Your task to perform on an android device: change text size in settings app Image 0: 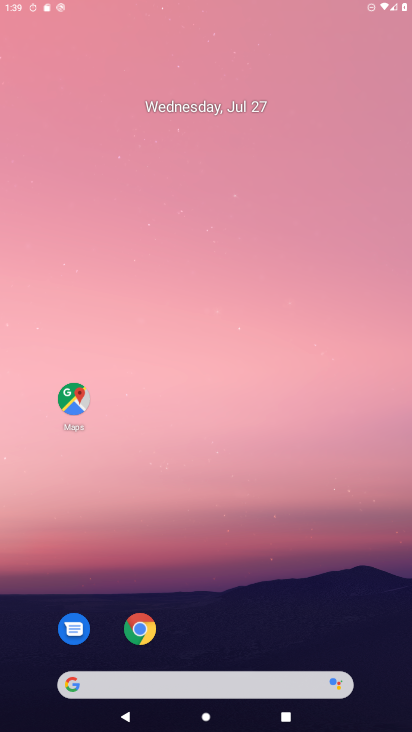
Step 0: press home button
Your task to perform on an android device: change text size in settings app Image 1: 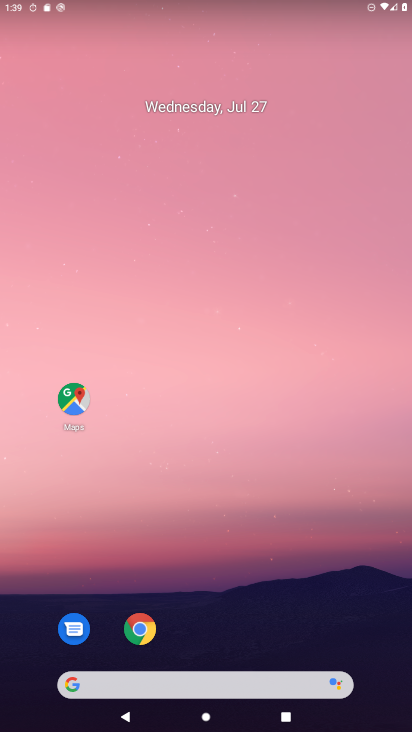
Step 1: drag from (267, 634) to (312, 90)
Your task to perform on an android device: change text size in settings app Image 2: 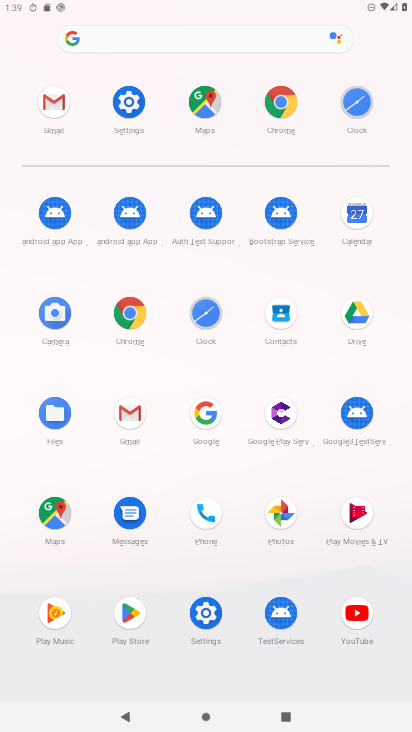
Step 2: click (127, 107)
Your task to perform on an android device: change text size in settings app Image 3: 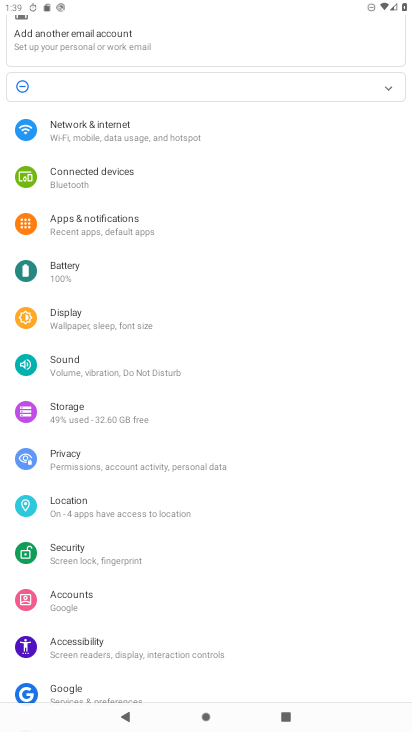
Step 3: click (52, 328)
Your task to perform on an android device: change text size in settings app Image 4: 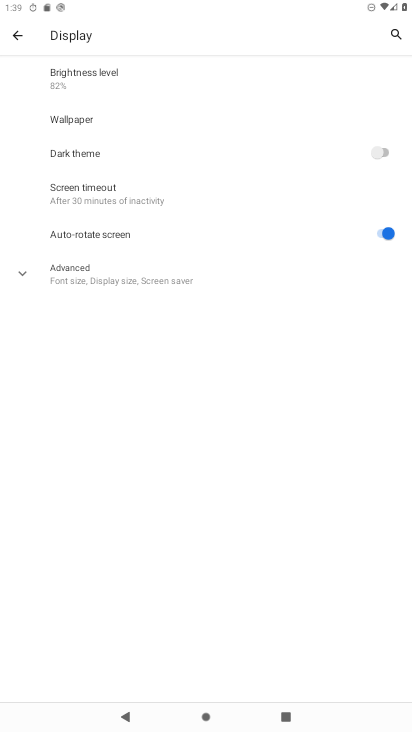
Step 4: click (77, 277)
Your task to perform on an android device: change text size in settings app Image 5: 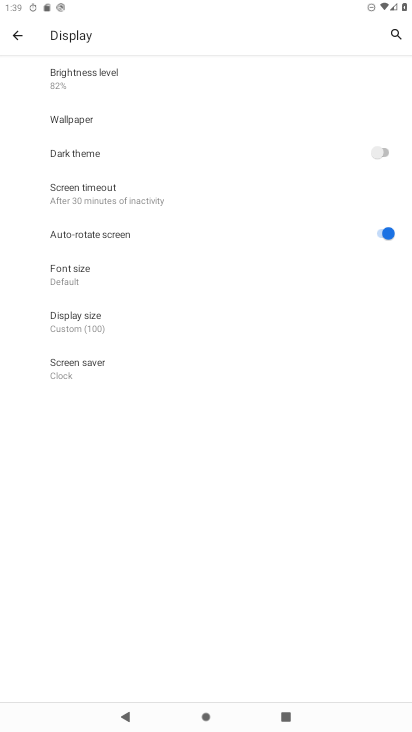
Step 5: click (68, 276)
Your task to perform on an android device: change text size in settings app Image 6: 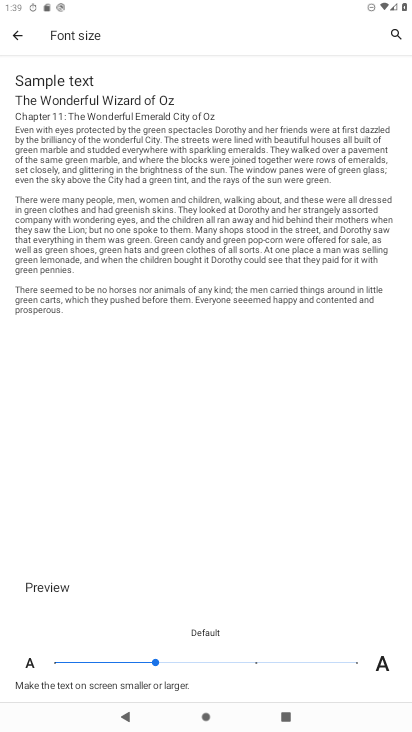
Step 6: click (256, 658)
Your task to perform on an android device: change text size in settings app Image 7: 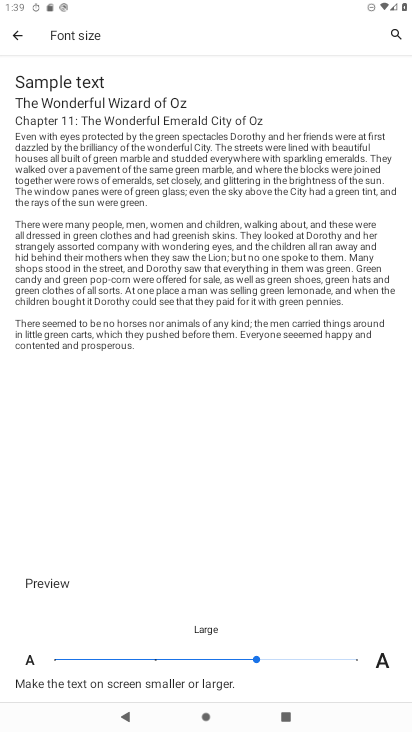
Step 7: click (360, 661)
Your task to perform on an android device: change text size in settings app Image 8: 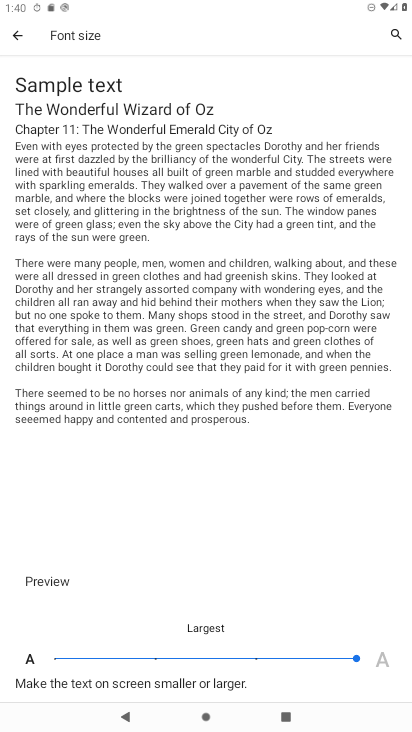
Step 8: task complete